Your task to perform on an android device: see sites visited before in the chrome app Image 0: 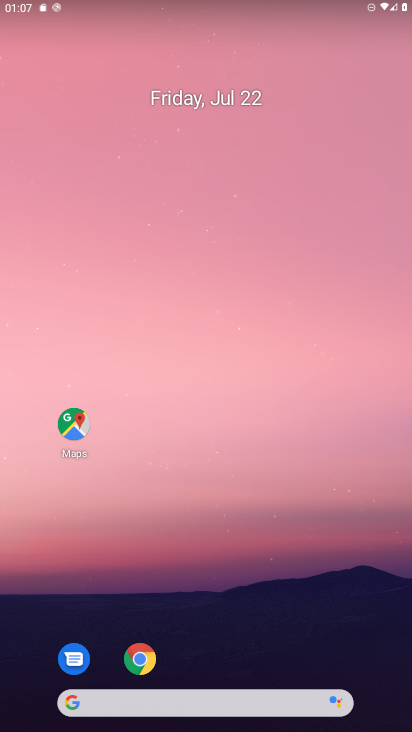
Step 0: click (140, 661)
Your task to perform on an android device: see sites visited before in the chrome app Image 1: 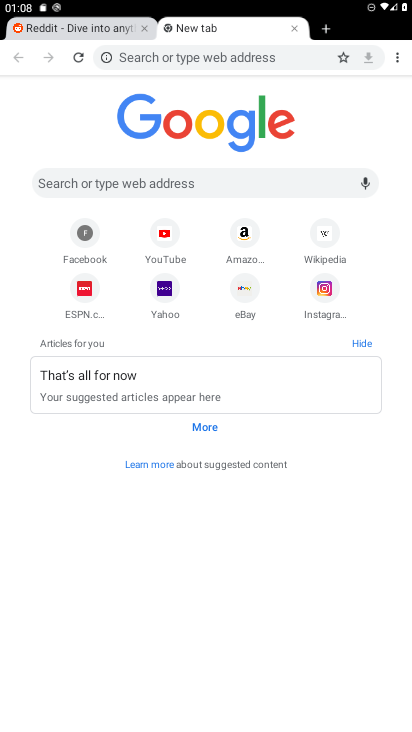
Step 1: click (399, 56)
Your task to perform on an android device: see sites visited before in the chrome app Image 2: 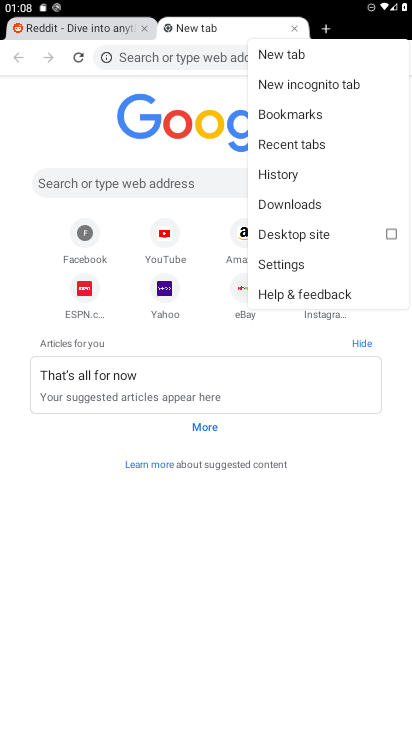
Step 2: click (293, 176)
Your task to perform on an android device: see sites visited before in the chrome app Image 3: 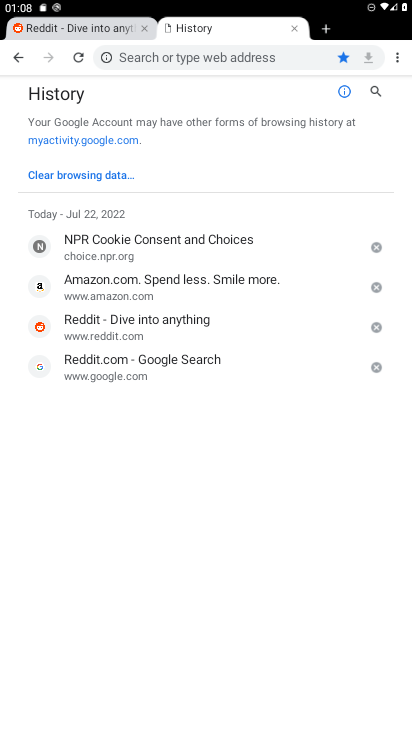
Step 3: task complete